Your task to perform on an android device: Open Android settings Image 0: 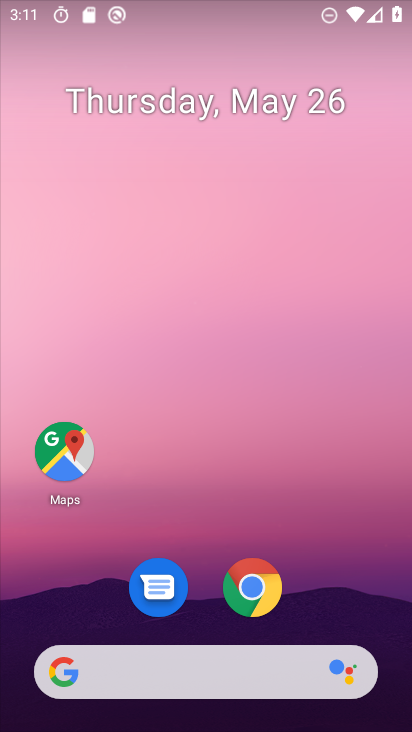
Step 0: drag from (351, 523) to (324, 132)
Your task to perform on an android device: Open Android settings Image 1: 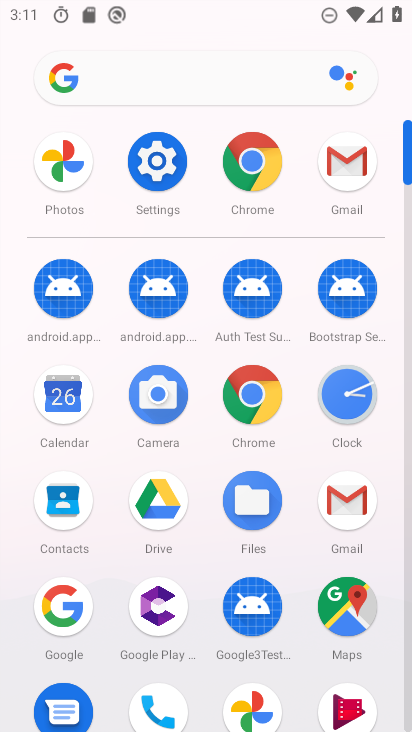
Step 1: click (157, 157)
Your task to perform on an android device: Open Android settings Image 2: 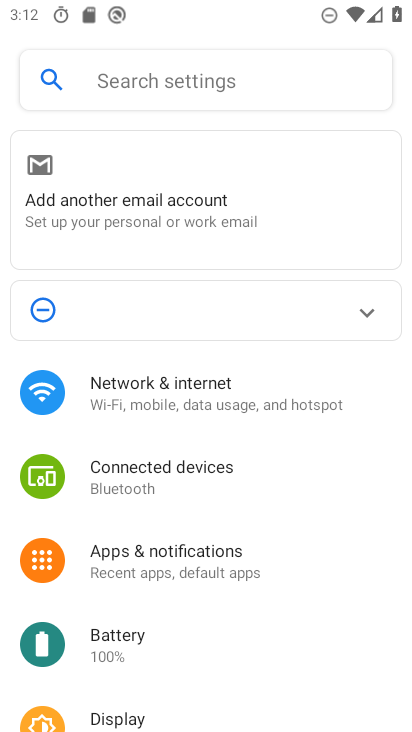
Step 2: task complete